Your task to perform on an android device: Open display settings Image 0: 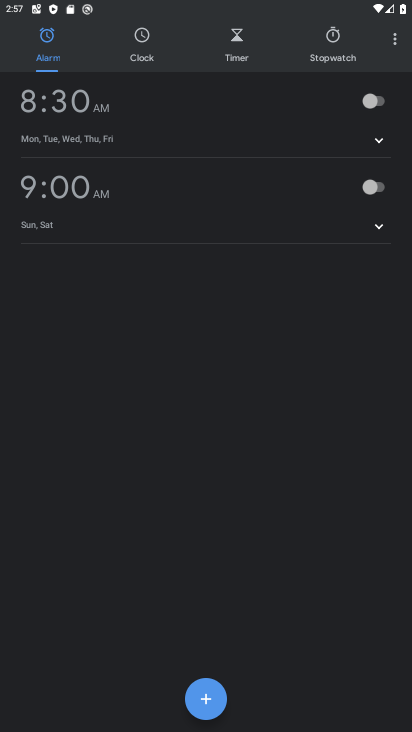
Step 0: press home button
Your task to perform on an android device: Open display settings Image 1: 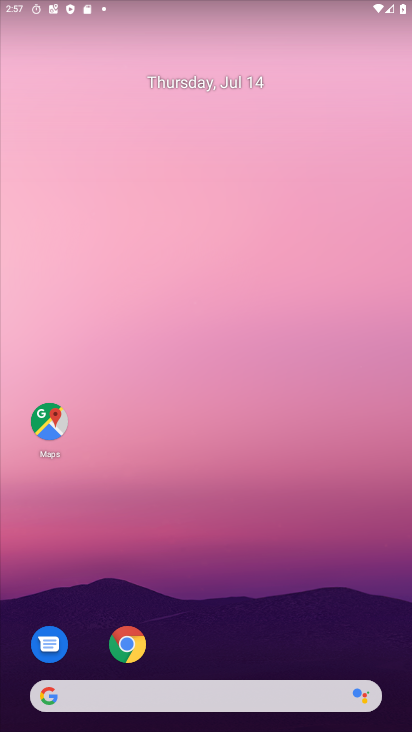
Step 1: drag from (66, 604) to (340, 3)
Your task to perform on an android device: Open display settings Image 2: 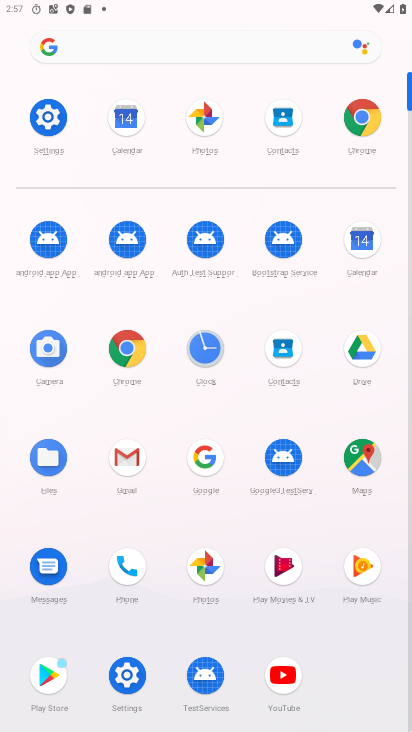
Step 2: click (127, 682)
Your task to perform on an android device: Open display settings Image 3: 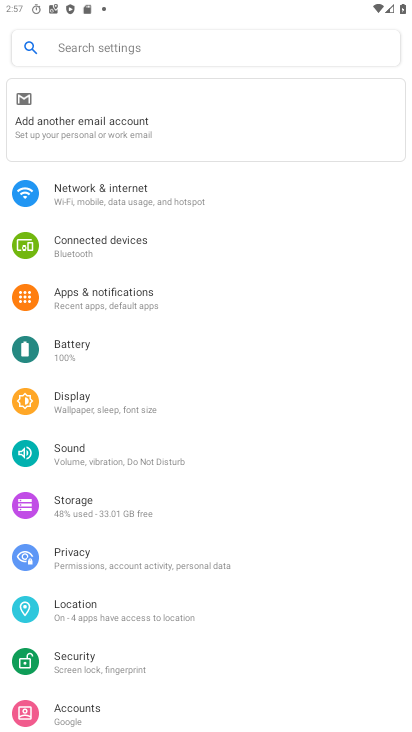
Step 3: click (98, 404)
Your task to perform on an android device: Open display settings Image 4: 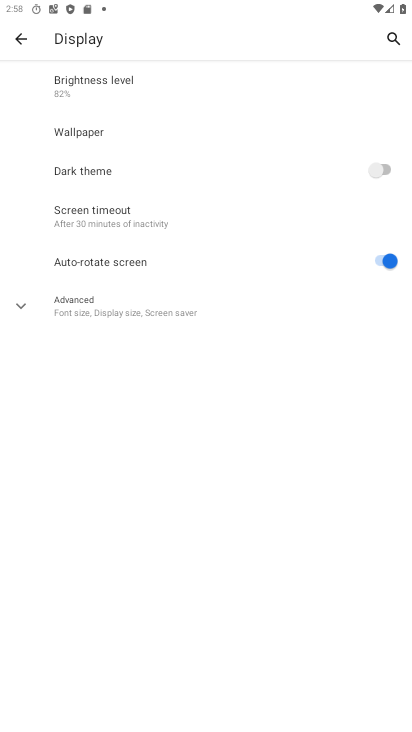
Step 4: task complete